Your task to perform on an android device: turn on wifi Image 0: 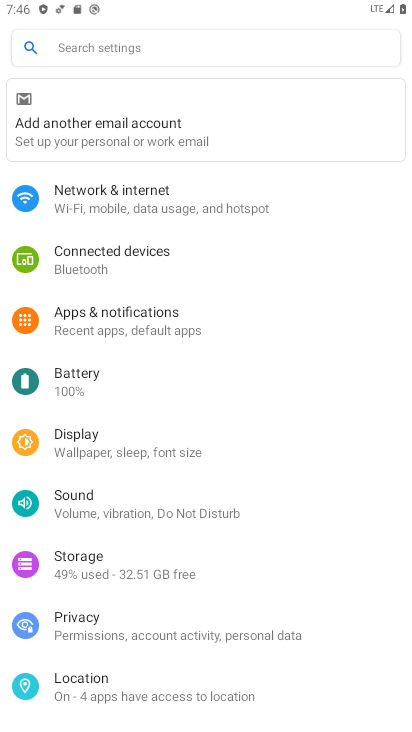
Step 0: press home button
Your task to perform on an android device: turn on wifi Image 1: 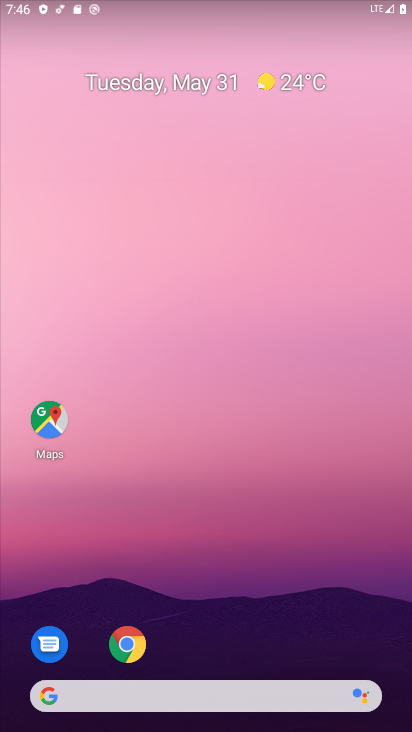
Step 1: drag from (350, 582) to (284, 220)
Your task to perform on an android device: turn on wifi Image 2: 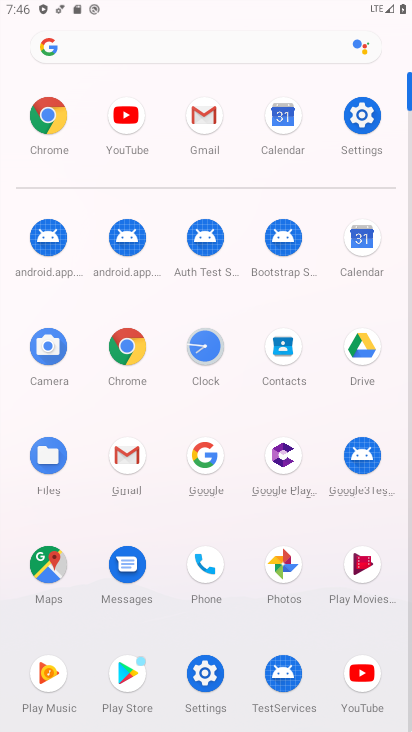
Step 2: click (373, 135)
Your task to perform on an android device: turn on wifi Image 3: 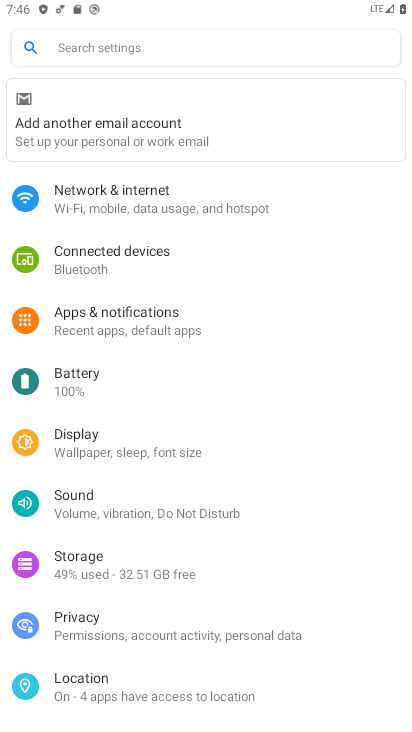
Step 3: click (168, 203)
Your task to perform on an android device: turn on wifi Image 4: 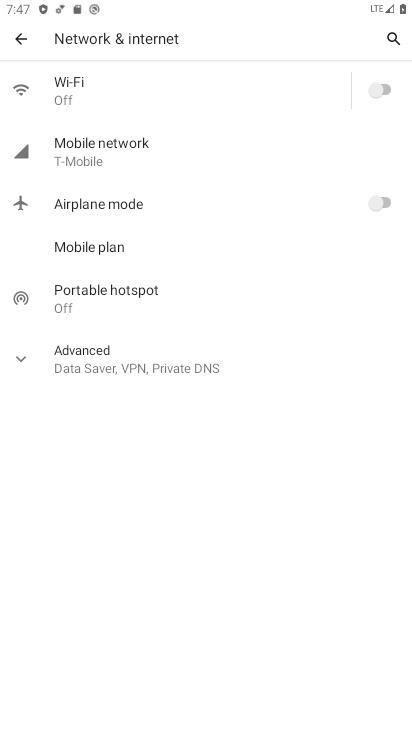
Step 4: click (382, 94)
Your task to perform on an android device: turn on wifi Image 5: 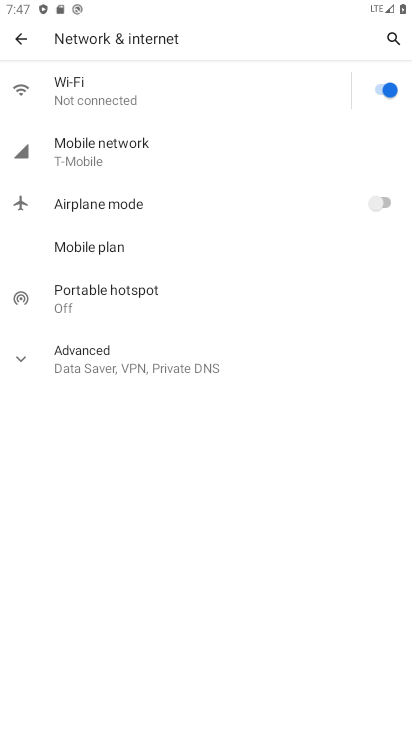
Step 5: task complete